Your task to perform on an android device: Go to ESPN.com Image 0: 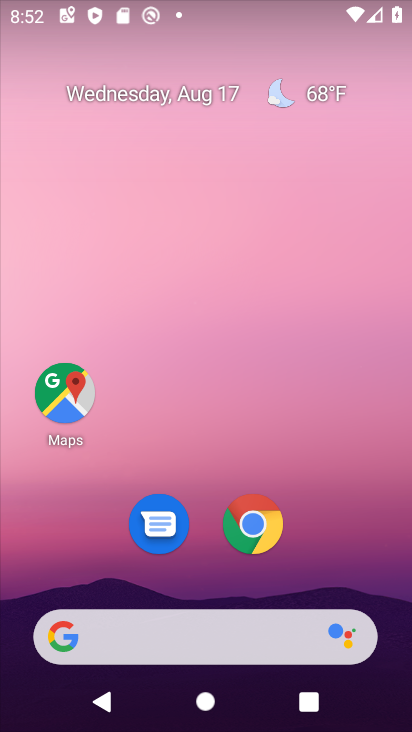
Step 0: click (196, 642)
Your task to perform on an android device: Go to ESPN.com Image 1: 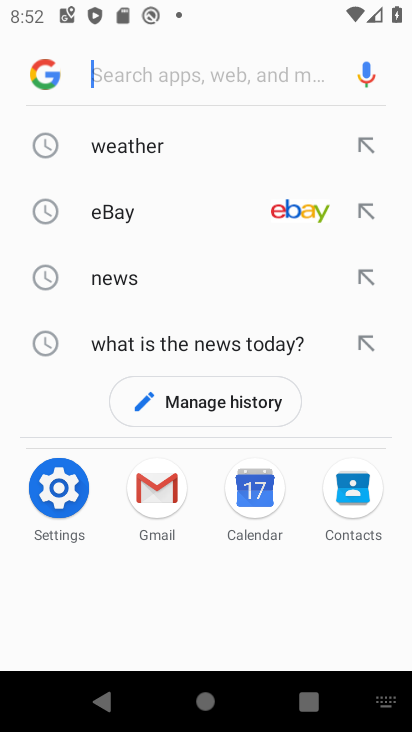
Step 1: type "espn.com"
Your task to perform on an android device: Go to ESPN.com Image 2: 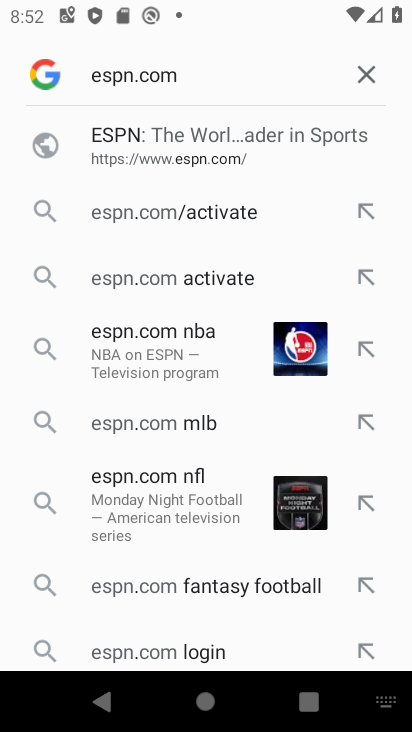
Step 2: click (207, 141)
Your task to perform on an android device: Go to ESPN.com Image 3: 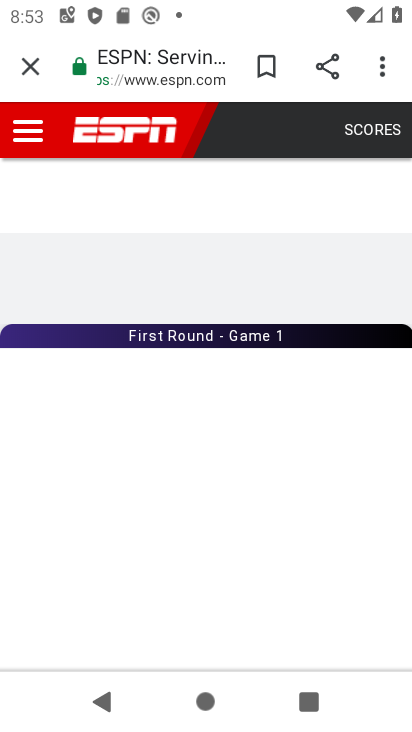
Step 3: task complete